Your task to perform on an android device: turn off notifications in google photos Image 0: 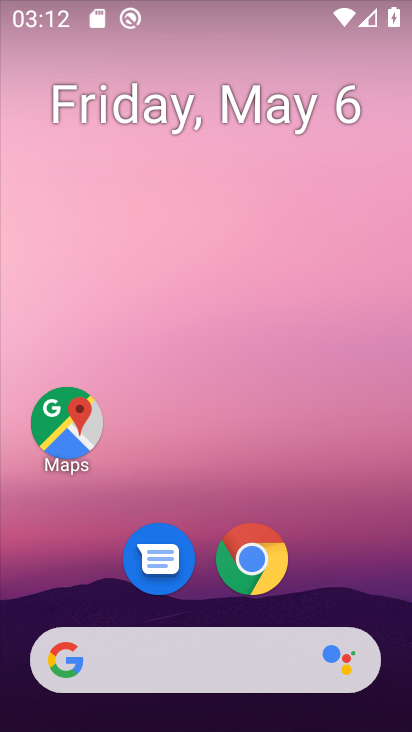
Step 0: drag from (347, 597) to (372, 38)
Your task to perform on an android device: turn off notifications in google photos Image 1: 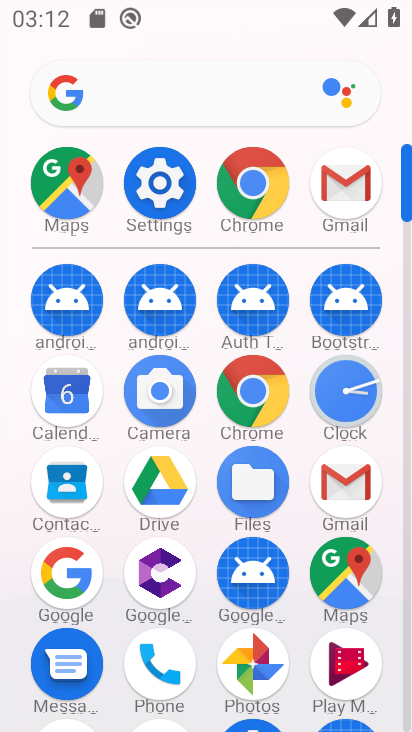
Step 1: click (262, 655)
Your task to perform on an android device: turn off notifications in google photos Image 2: 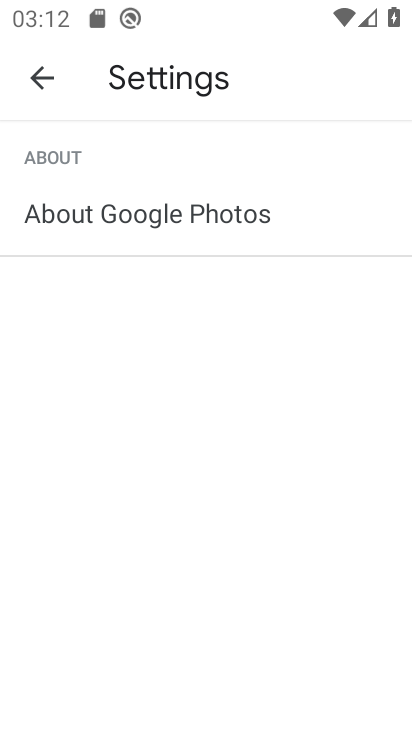
Step 2: press back button
Your task to perform on an android device: turn off notifications in google photos Image 3: 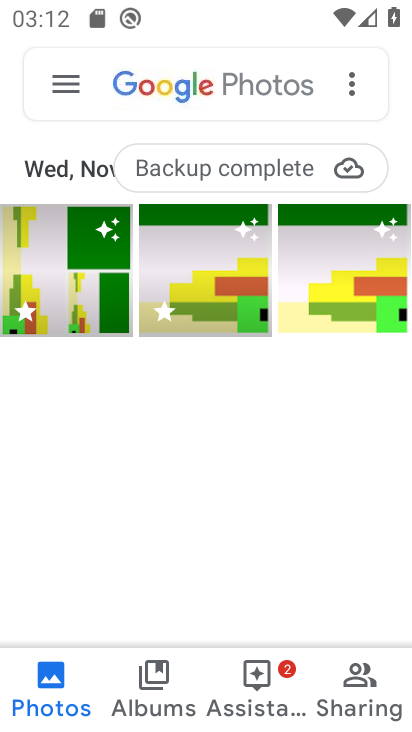
Step 3: click (59, 84)
Your task to perform on an android device: turn off notifications in google photos Image 4: 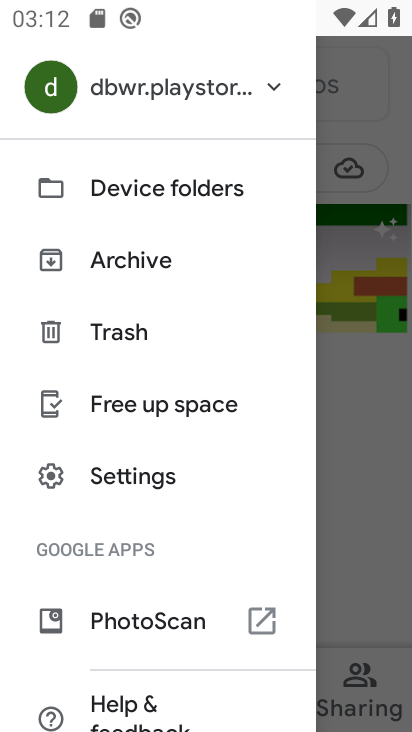
Step 4: click (183, 491)
Your task to perform on an android device: turn off notifications in google photos Image 5: 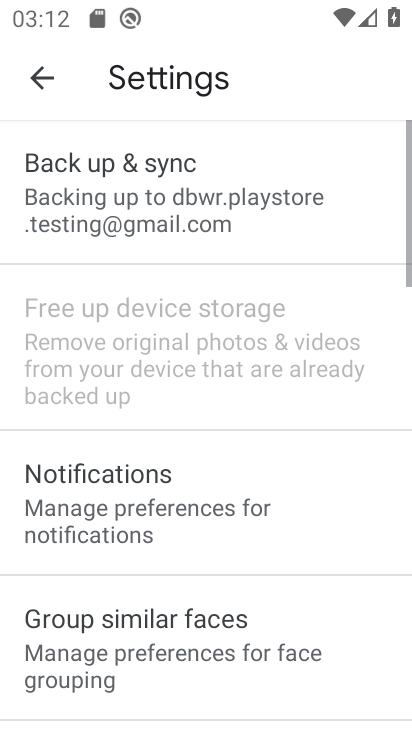
Step 5: click (179, 524)
Your task to perform on an android device: turn off notifications in google photos Image 6: 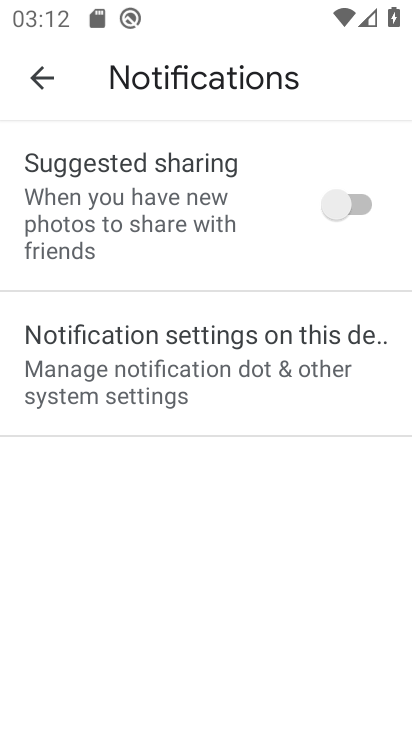
Step 6: click (293, 414)
Your task to perform on an android device: turn off notifications in google photos Image 7: 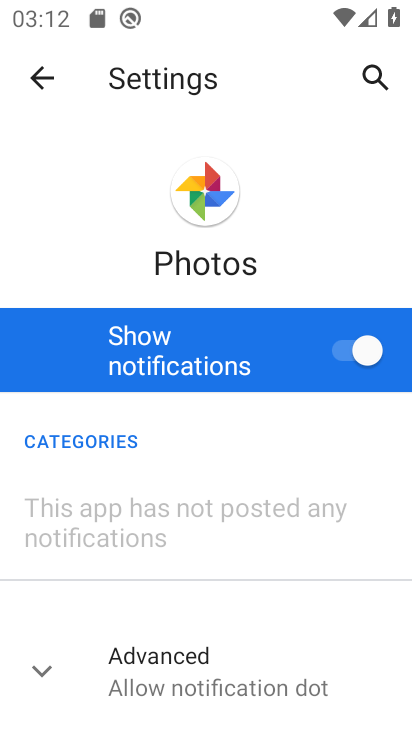
Step 7: click (343, 346)
Your task to perform on an android device: turn off notifications in google photos Image 8: 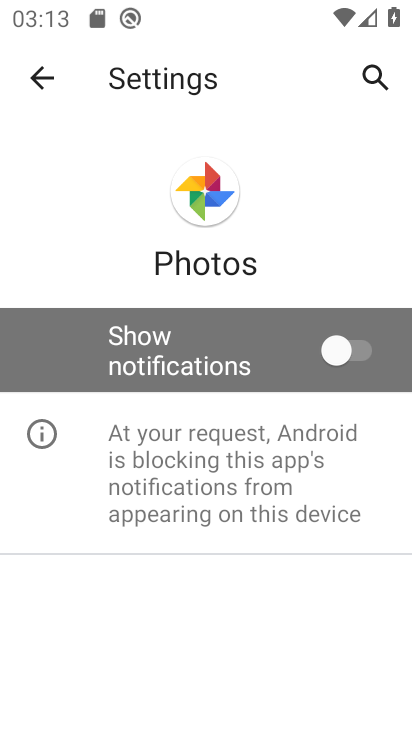
Step 8: task complete